Your task to perform on an android device: Check the news Image 0: 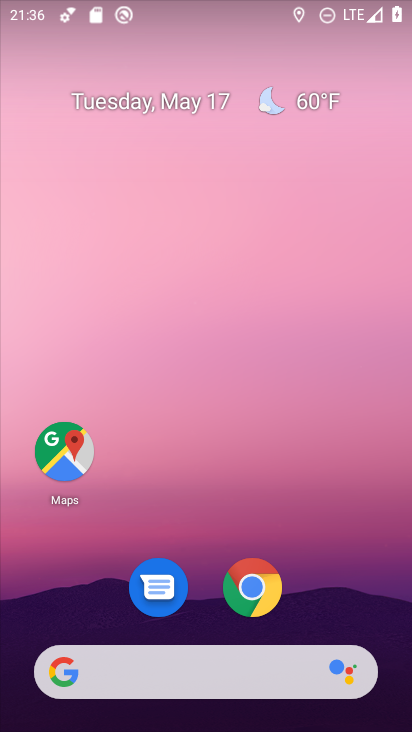
Step 0: drag from (271, 534) to (174, 261)
Your task to perform on an android device: Check the news Image 1: 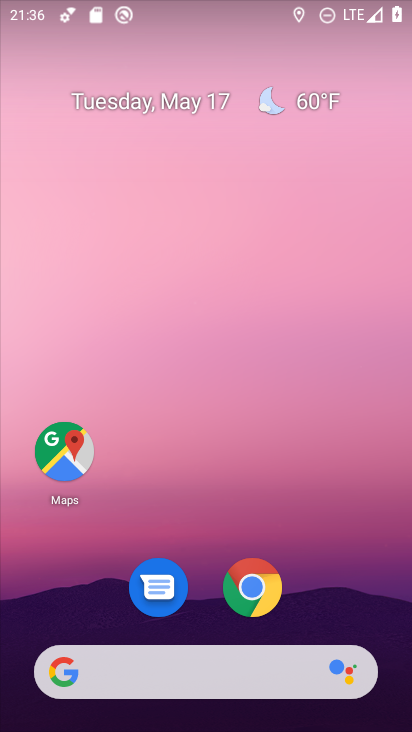
Step 1: drag from (215, 493) to (90, 84)
Your task to perform on an android device: Check the news Image 2: 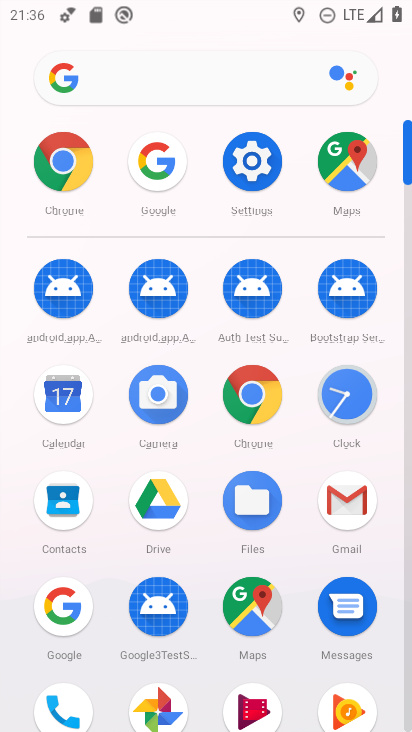
Step 2: click (167, 164)
Your task to perform on an android device: Check the news Image 3: 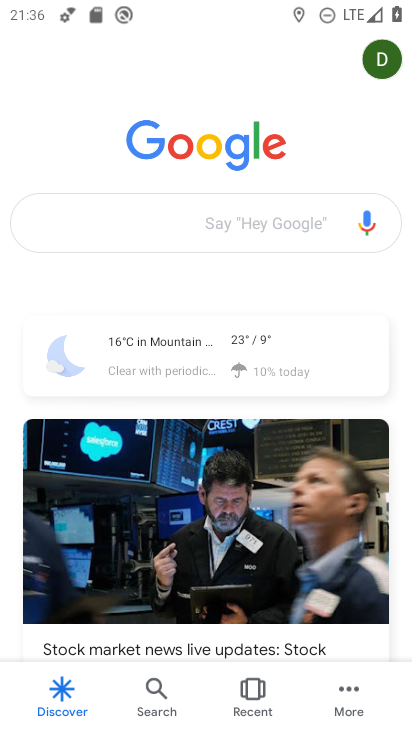
Step 3: task complete